Your task to perform on an android device: Open Yahoo.com Image 0: 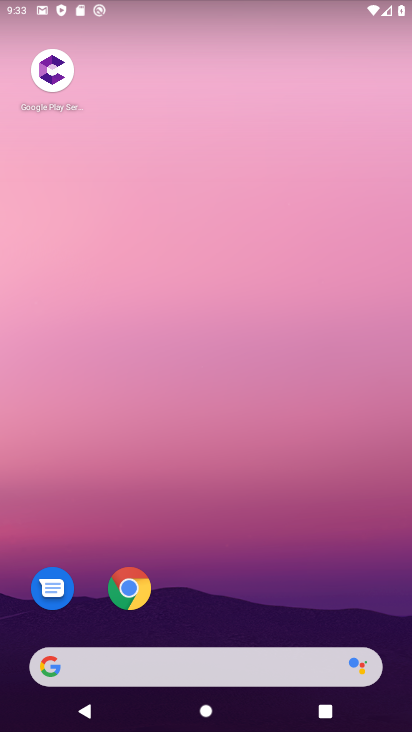
Step 0: click (133, 594)
Your task to perform on an android device: Open Yahoo.com Image 1: 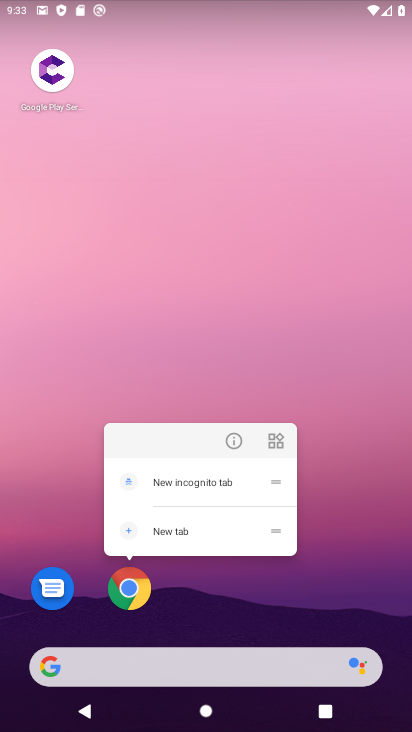
Step 1: click (121, 586)
Your task to perform on an android device: Open Yahoo.com Image 2: 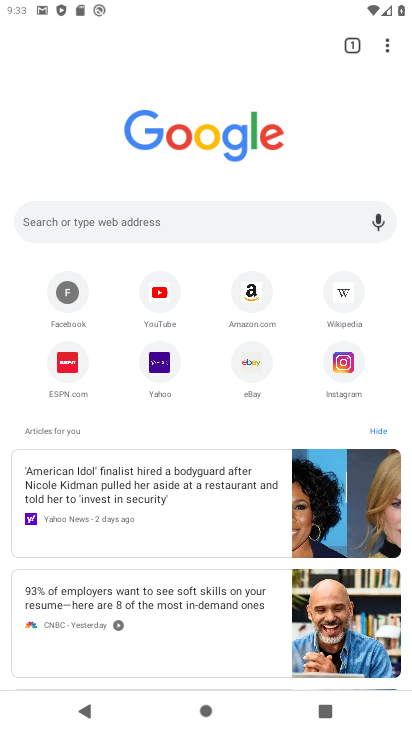
Step 2: click (158, 376)
Your task to perform on an android device: Open Yahoo.com Image 3: 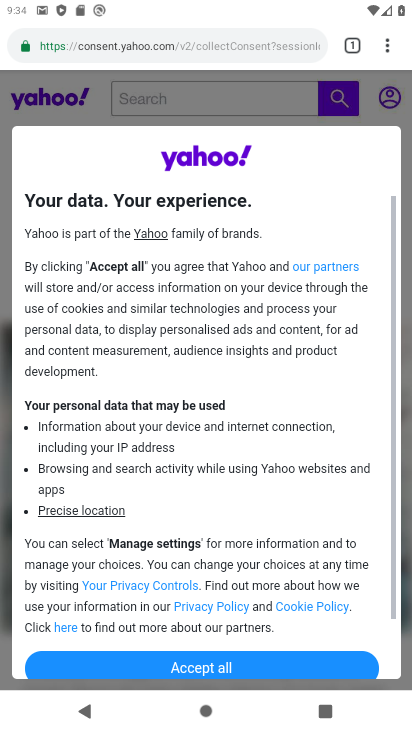
Step 3: task complete